Your task to perform on an android device: Open notification settings Image 0: 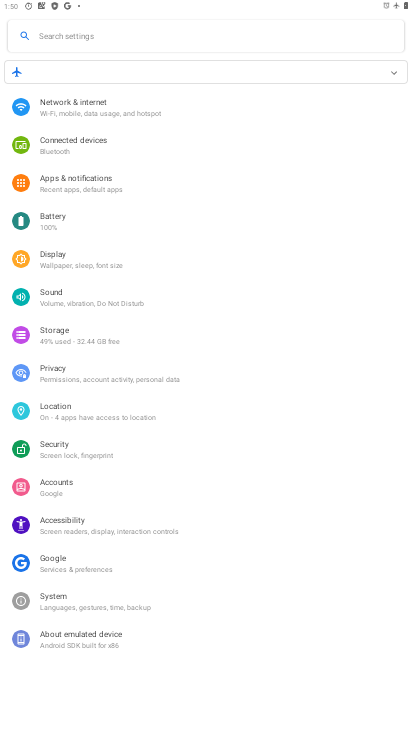
Step 0: click (73, 185)
Your task to perform on an android device: Open notification settings Image 1: 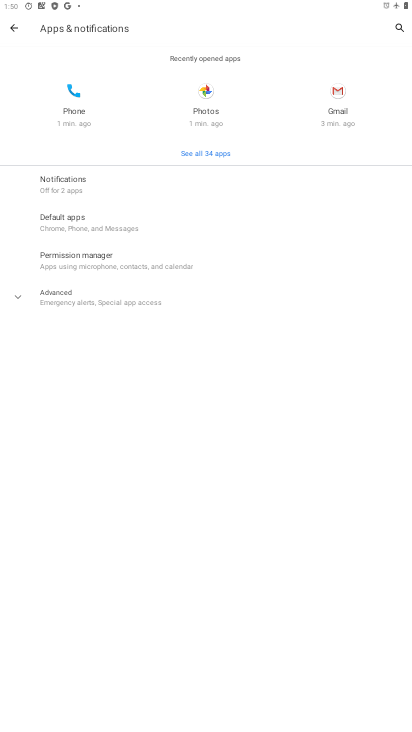
Step 1: click (54, 190)
Your task to perform on an android device: Open notification settings Image 2: 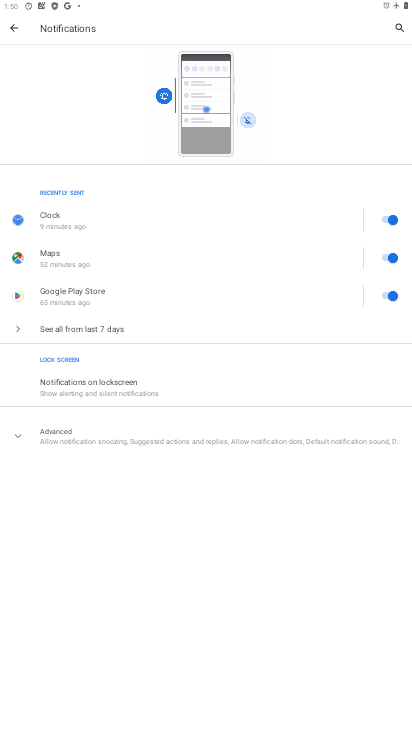
Step 2: click (19, 441)
Your task to perform on an android device: Open notification settings Image 3: 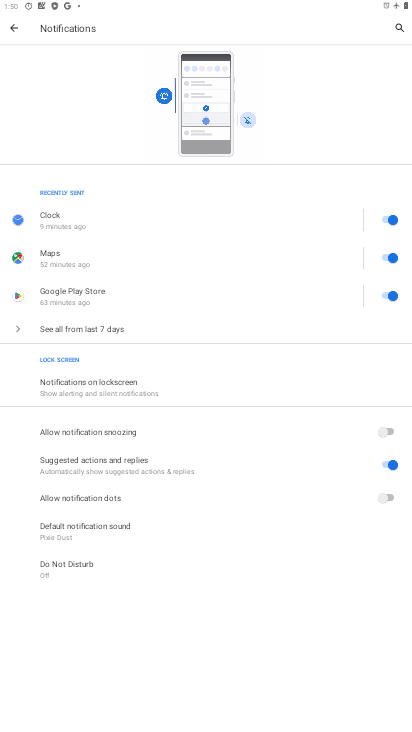
Step 3: task complete